Your task to perform on an android device: Open ESPN.com Image 0: 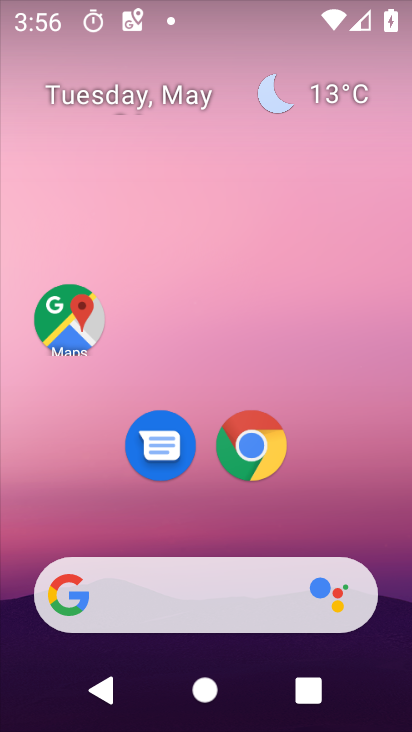
Step 0: press home button
Your task to perform on an android device: Open ESPN.com Image 1: 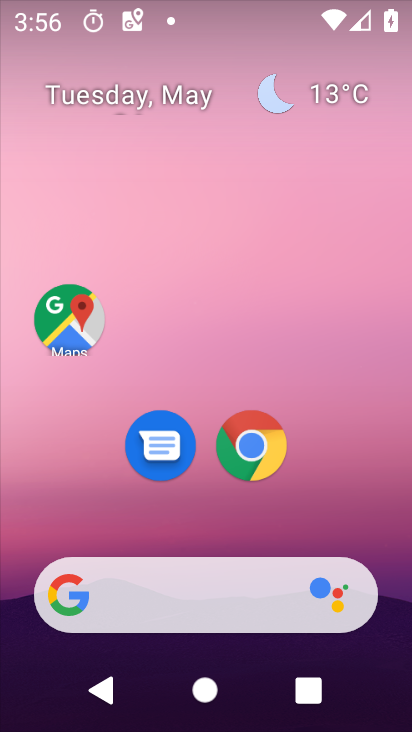
Step 1: click (249, 437)
Your task to perform on an android device: Open ESPN.com Image 2: 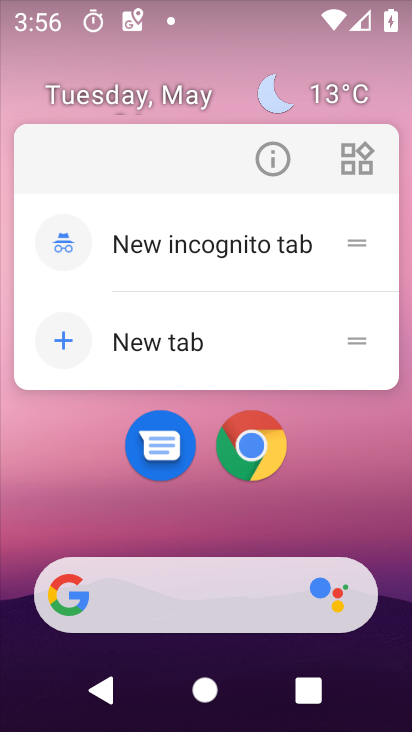
Step 2: click (249, 437)
Your task to perform on an android device: Open ESPN.com Image 3: 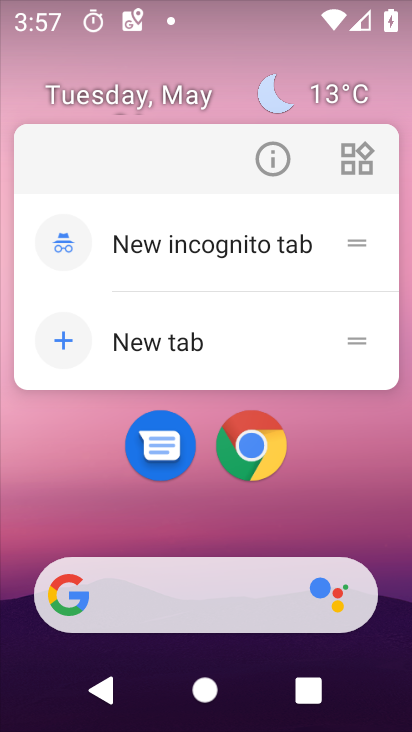
Step 3: click (249, 438)
Your task to perform on an android device: Open ESPN.com Image 4: 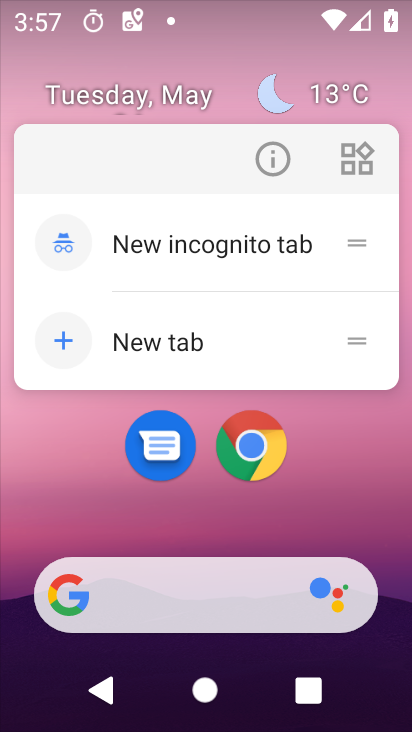
Step 4: click (251, 437)
Your task to perform on an android device: Open ESPN.com Image 5: 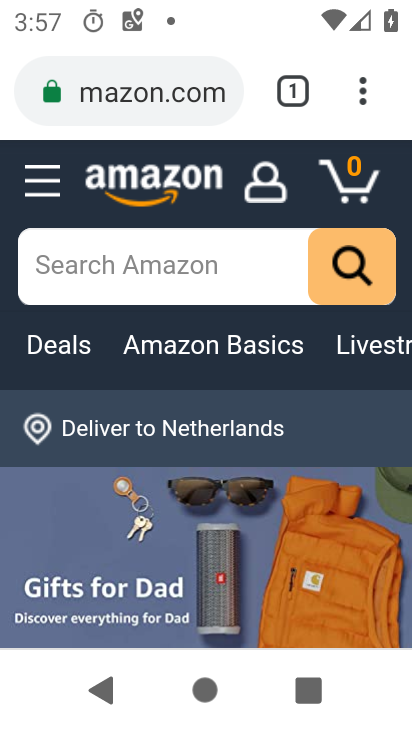
Step 5: click (292, 83)
Your task to perform on an android device: Open ESPN.com Image 6: 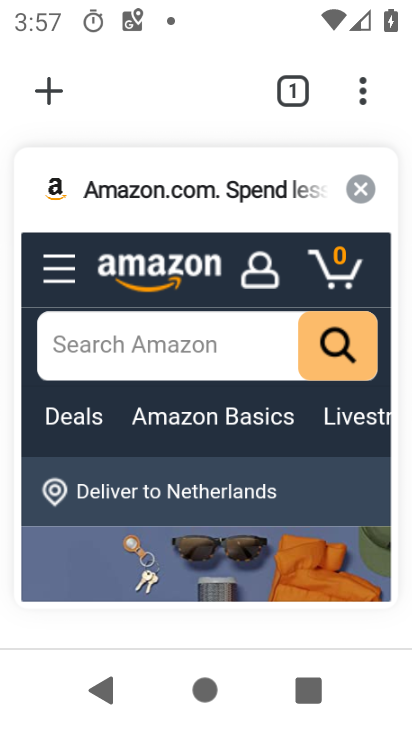
Step 6: click (358, 185)
Your task to perform on an android device: Open ESPN.com Image 7: 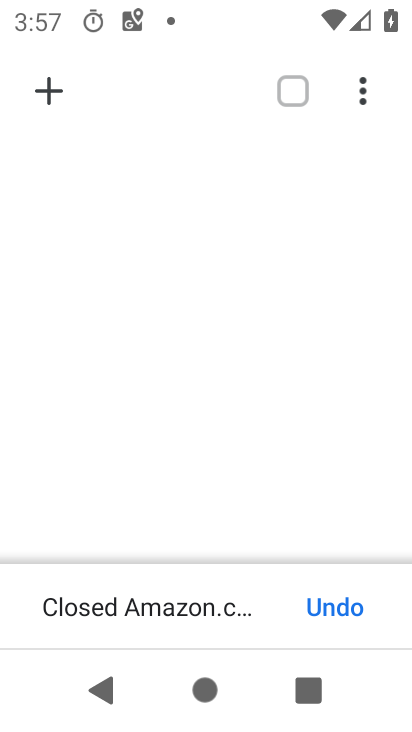
Step 7: click (53, 91)
Your task to perform on an android device: Open ESPN.com Image 8: 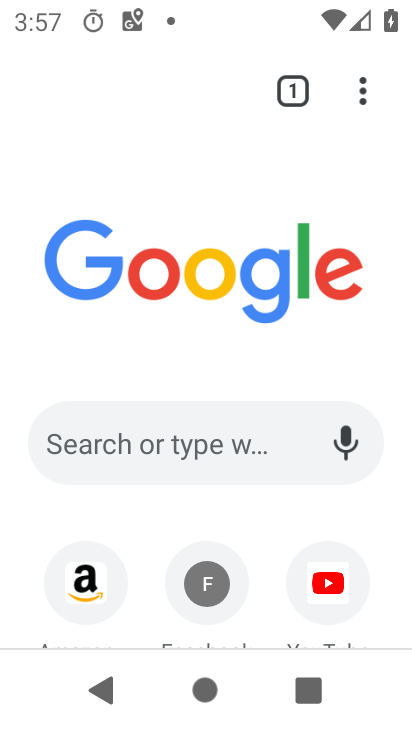
Step 8: drag from (266, 544) to (265, 119)
Your task to perform on an android device: Open ESPN.com Image 9: 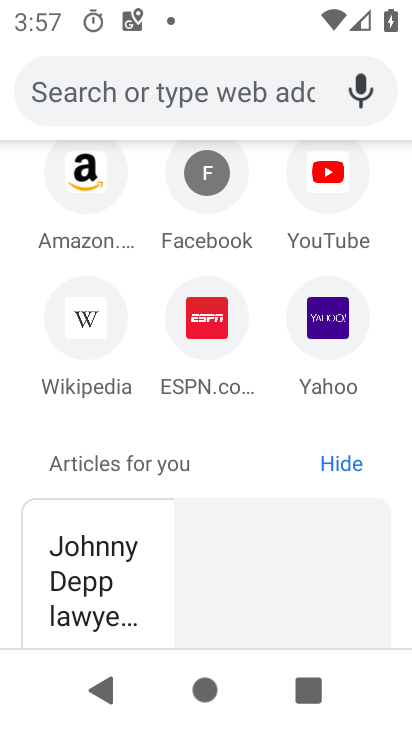
Step 9: click (205, 314)
Your task to perform on an android device: Open ESPN.com Image 10: 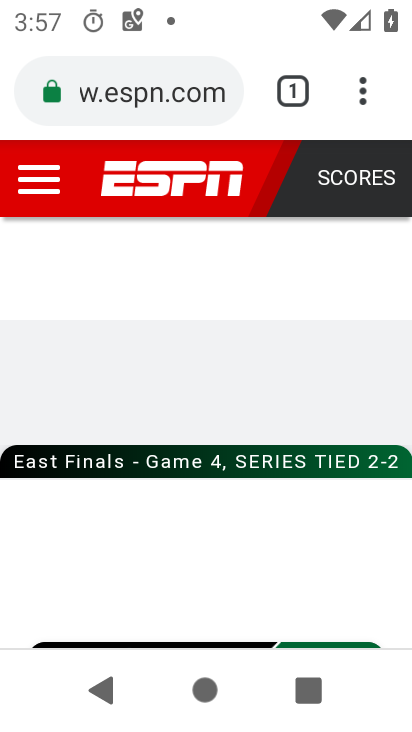
Step 10: task complete